Your task to perform on an android device: Show me popular videos on Youtube Image 0: 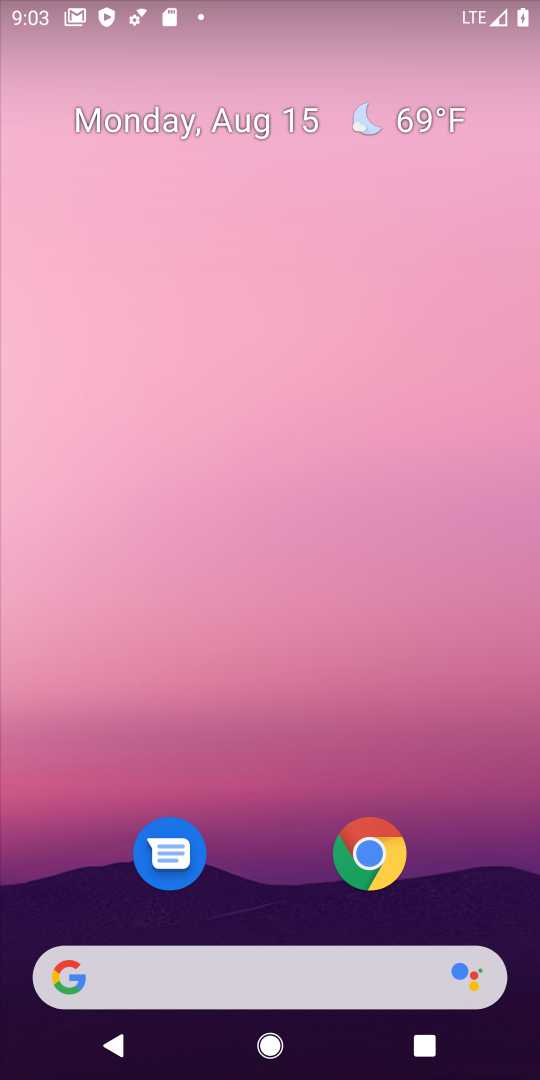
Step 0: drag from (282, 952) to (69, 37)
Your task to perform on an android device: Show me popular videos on Youtube Image 1: 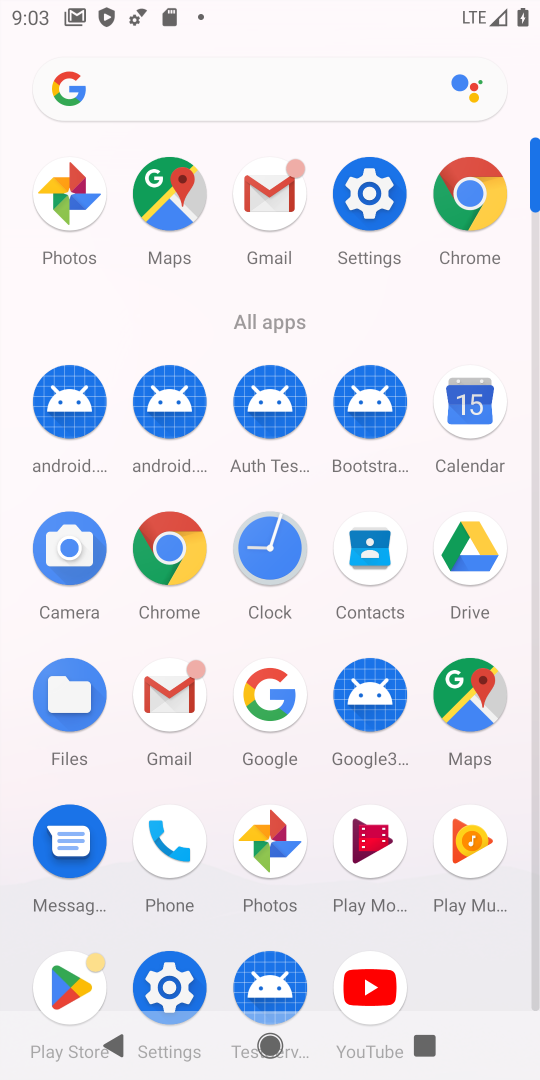
Step 1: click (366, 993)
Your task to perform on an android device: Show me popular videos on Youtube Image 2: 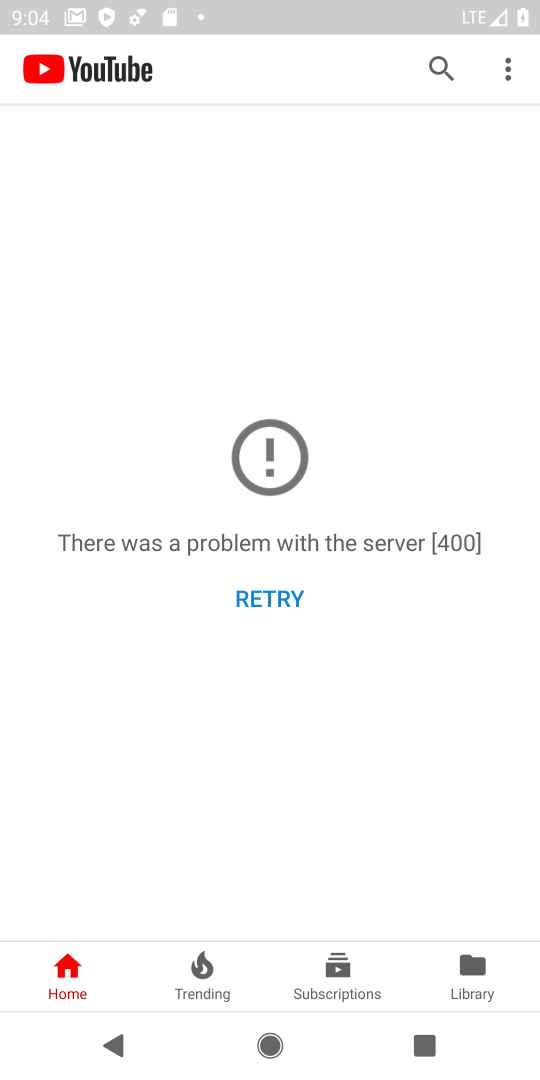
Step 2: click (436, 64)
Your task to perform on an android device: Show me popular videos on Youtube Image 3: 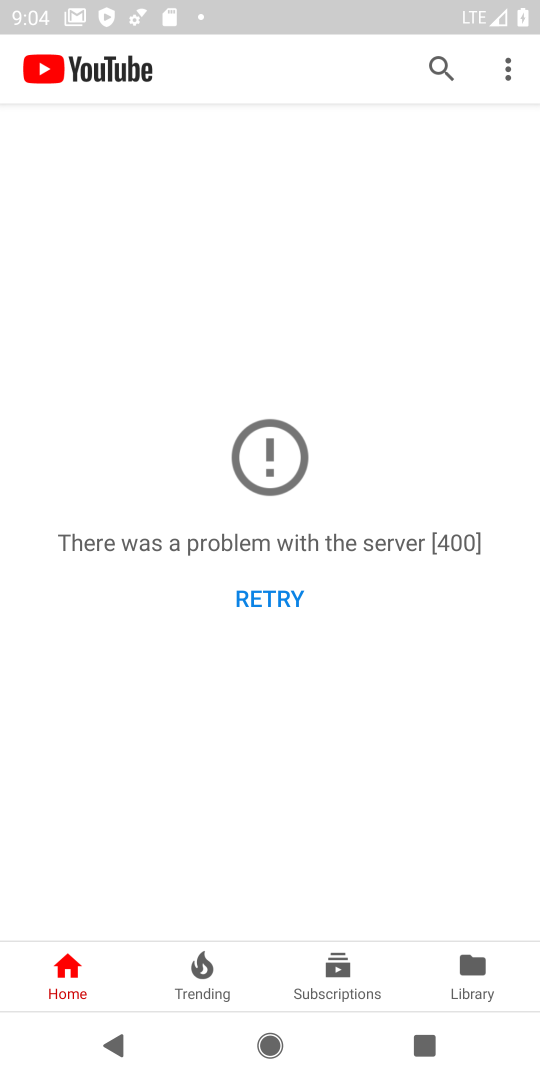
Step 3: click (435, 70)
Your task to perform on an android device: Show me popular videos on Youtube Image 4: 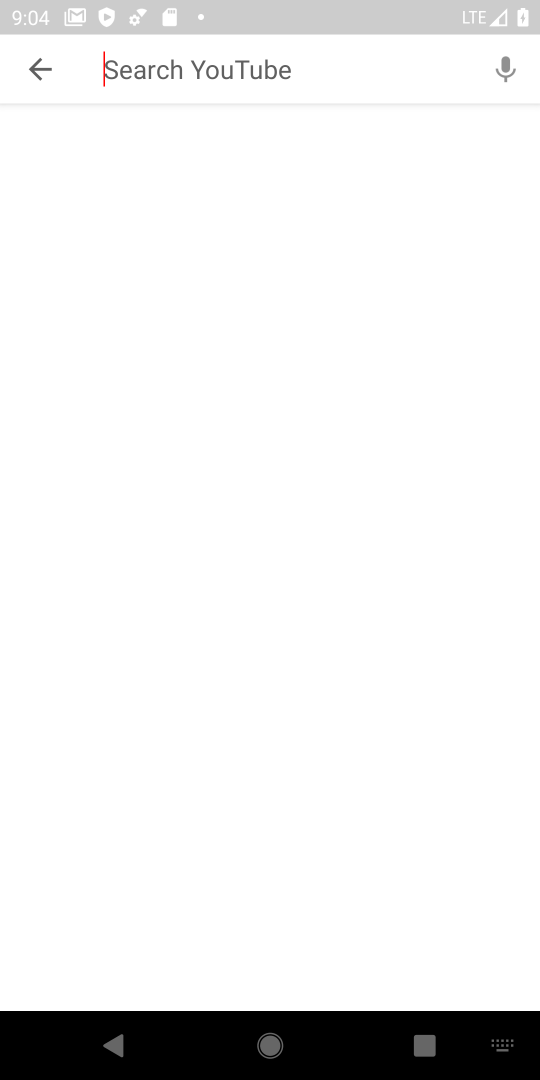
Step 4: click (413, 70)
Your task to perform on an android device: Show me popular videos on Youtube Image 5: 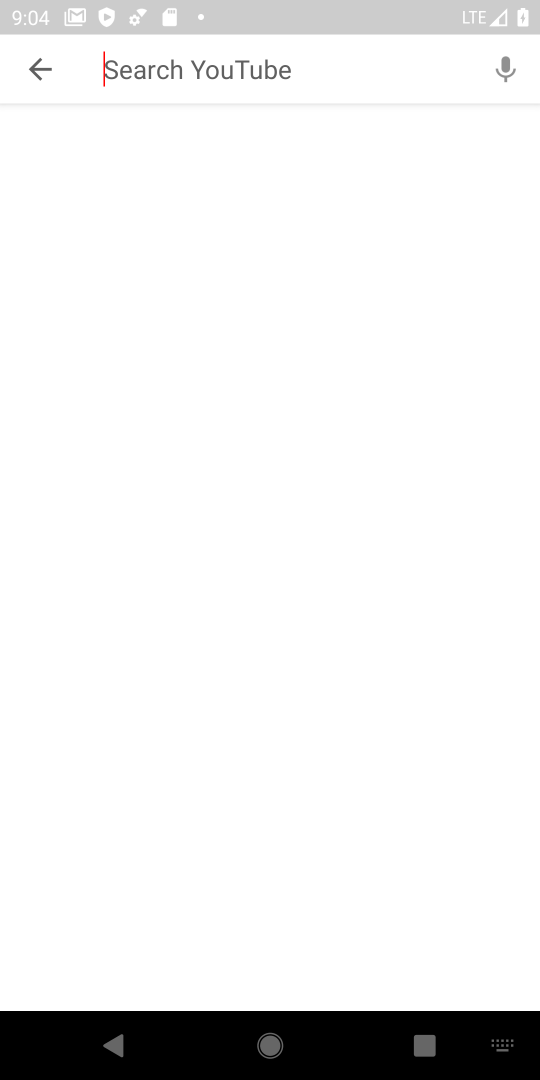
Step 5: type "popular videos "
Your task to perform on an android device: Show me popular videos on Youtube Image 6: 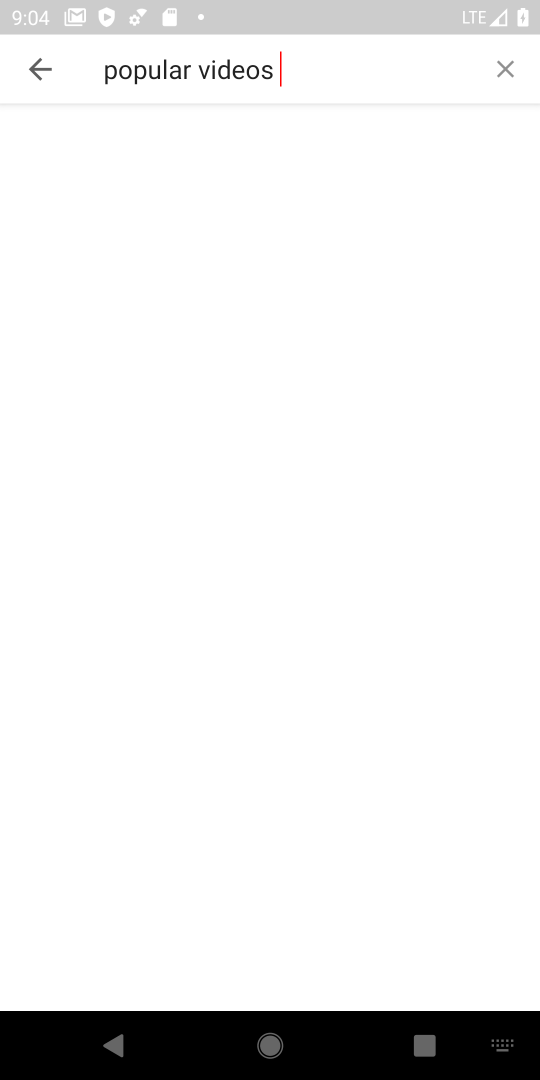
Step 6: type ""
Your task to perform on an android device: Show me popular videos on Youtube Image 7: 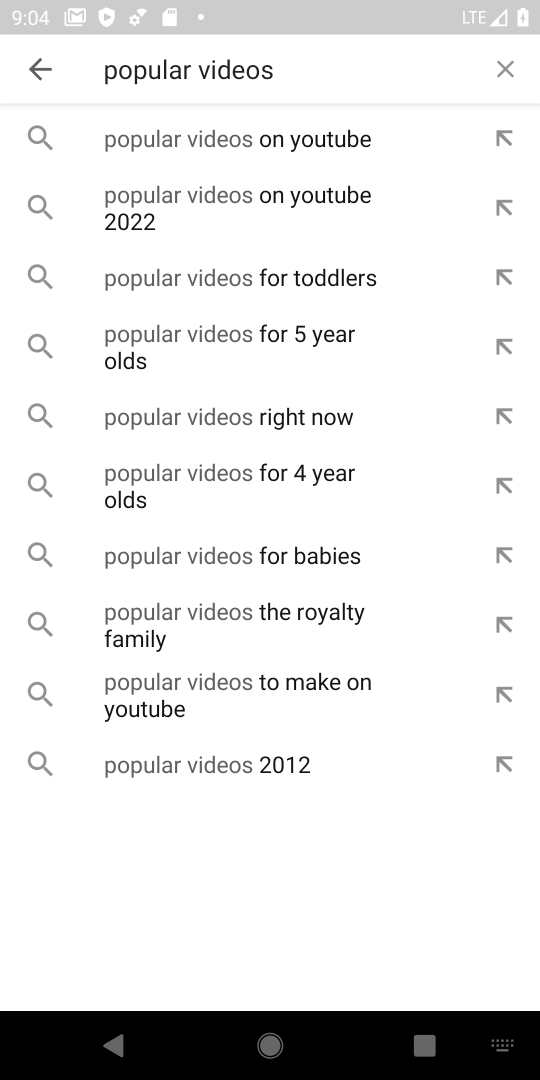
Step 7: click (221, 188)
Your task to perform on an android device: Show me popular videos on Youtube Image 8: 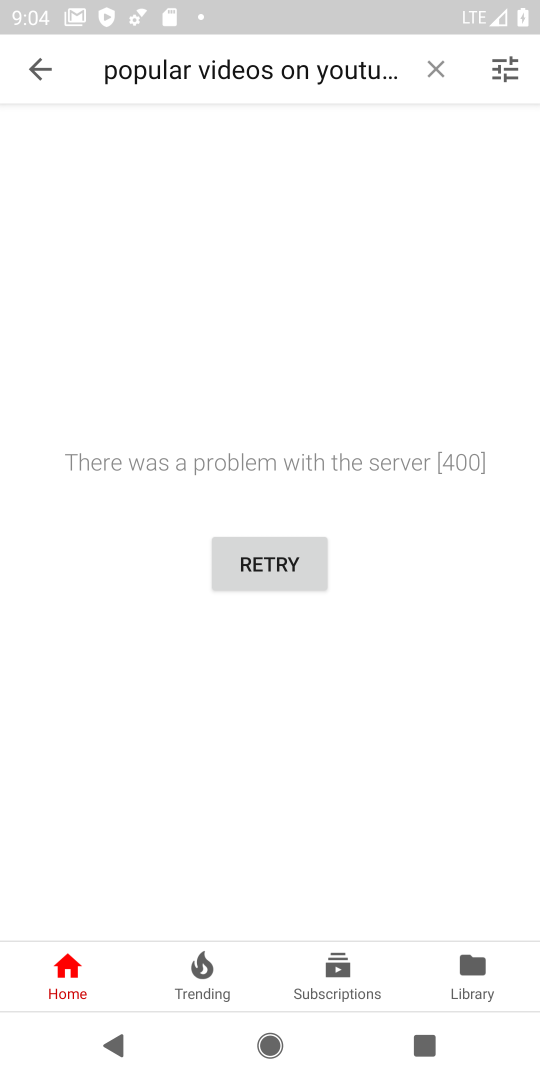
Step 8: task complete